Your task to perform on an android device: turn off notifications settings in the gmail app Image 0: 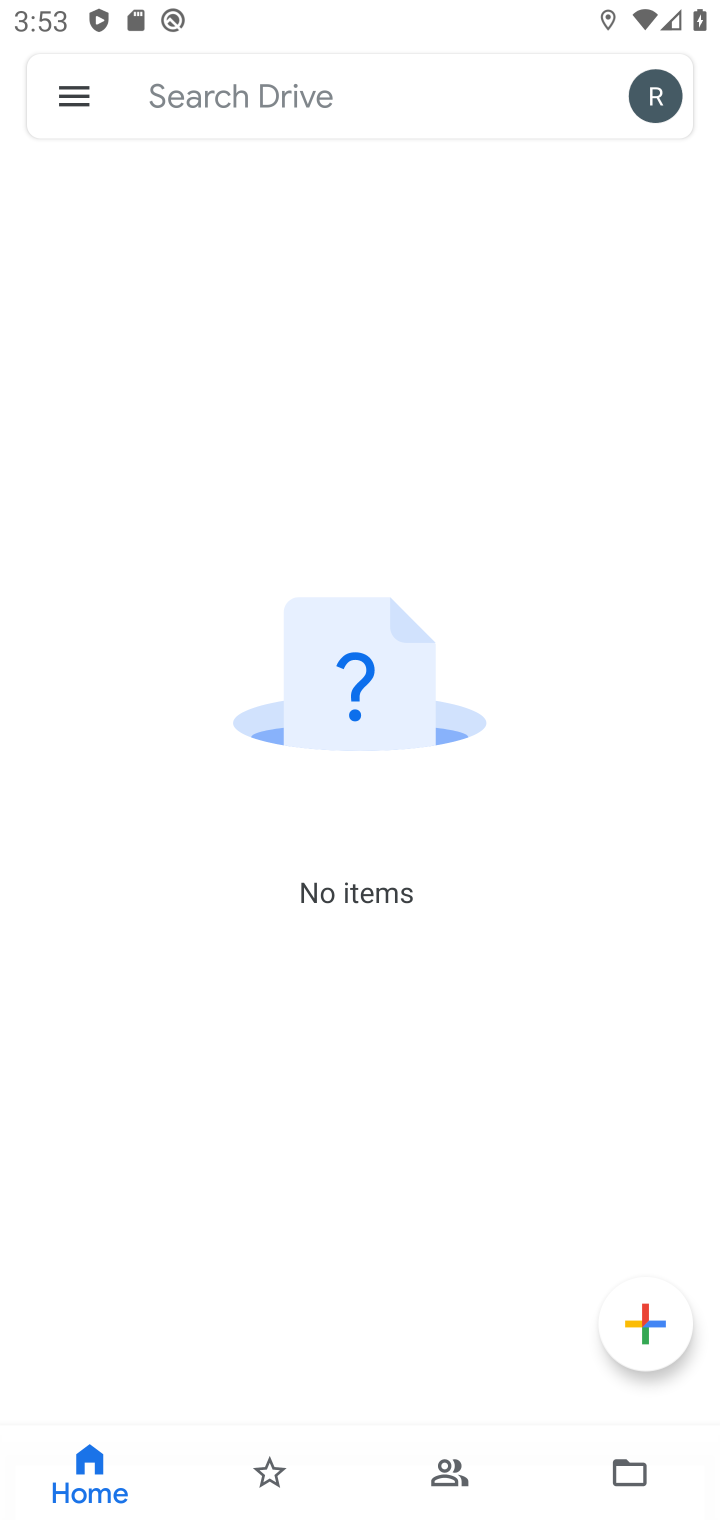
Step 0: press back button
Your task to perform on an android device: turn off notifications settings in the gmail app Image 1: 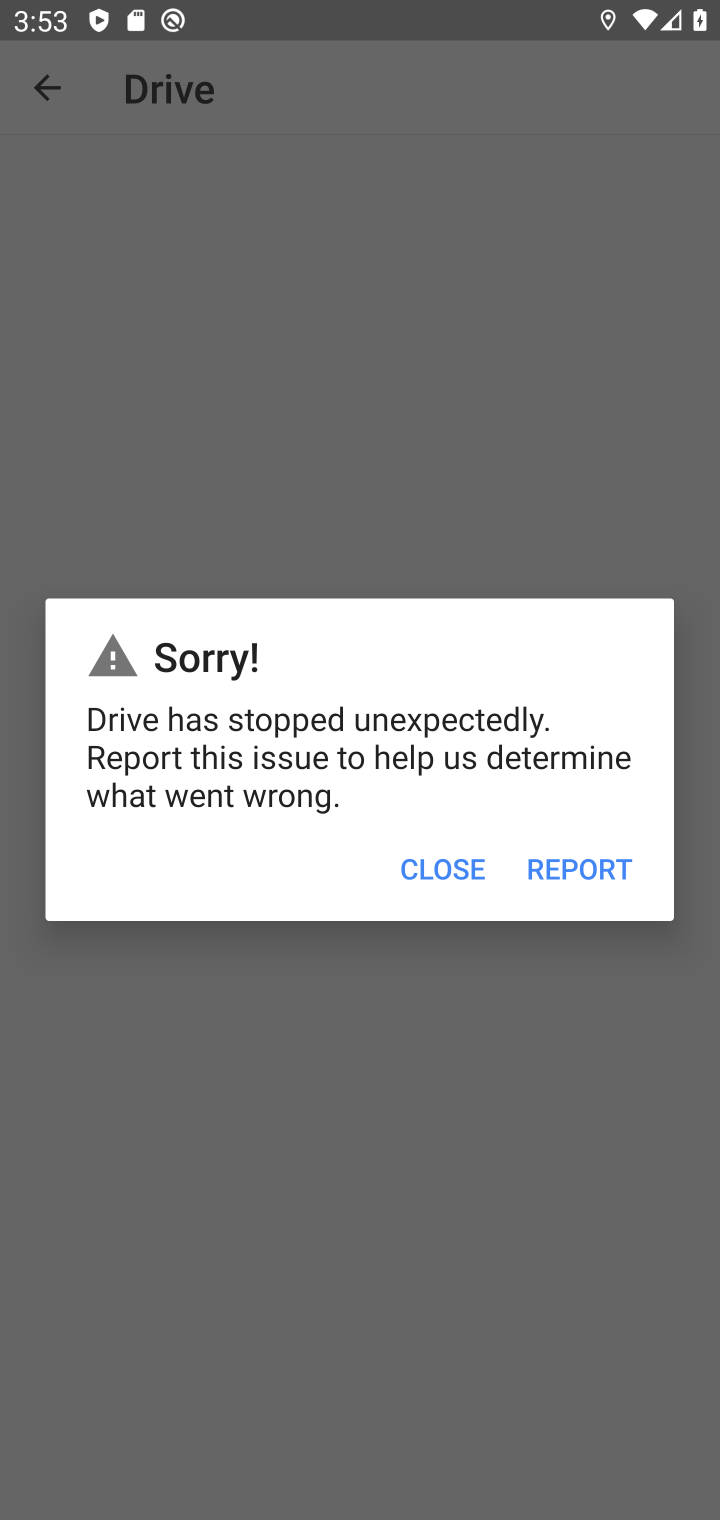
Step 1: click (444, 867)
Your task to perform on an android device: turn off notifications settings in the gmail app Image 2: 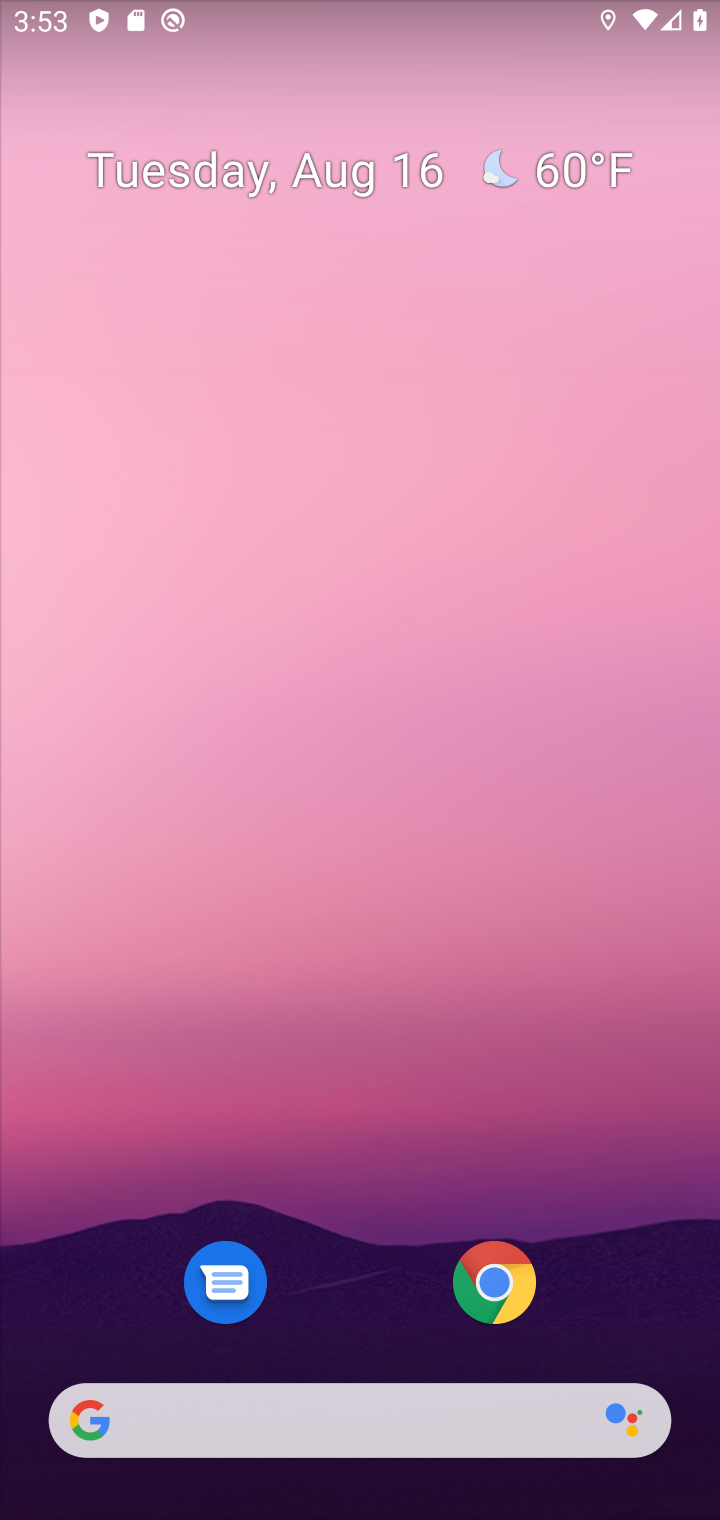
Step 2: drag from (376, 1235) to (621, 3)
Your task to perform on an android device: turn off notifications settings in the gmail app Image 3: 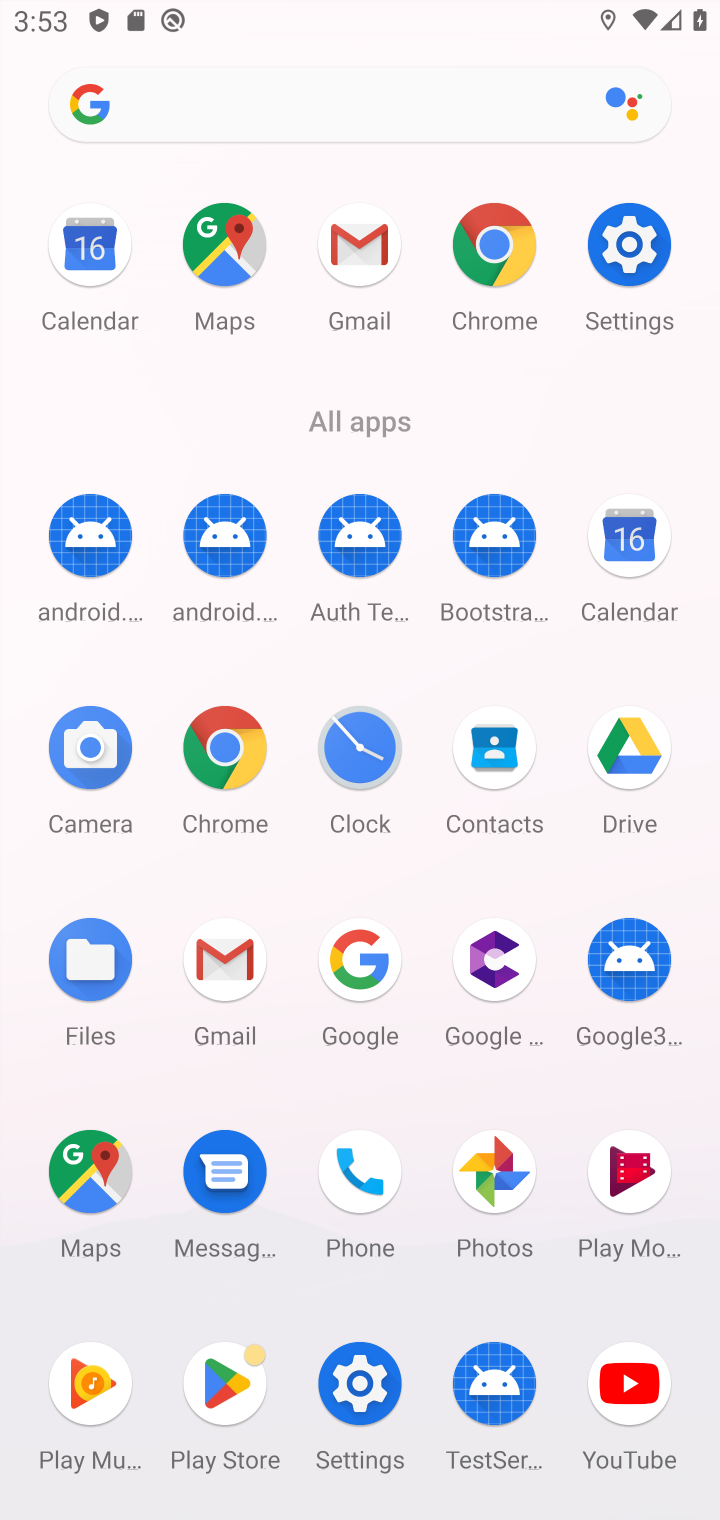
Step 3: click (363, 218)
Your task to perform on an android device: turn off notifications settings in the gmail app Image 4: 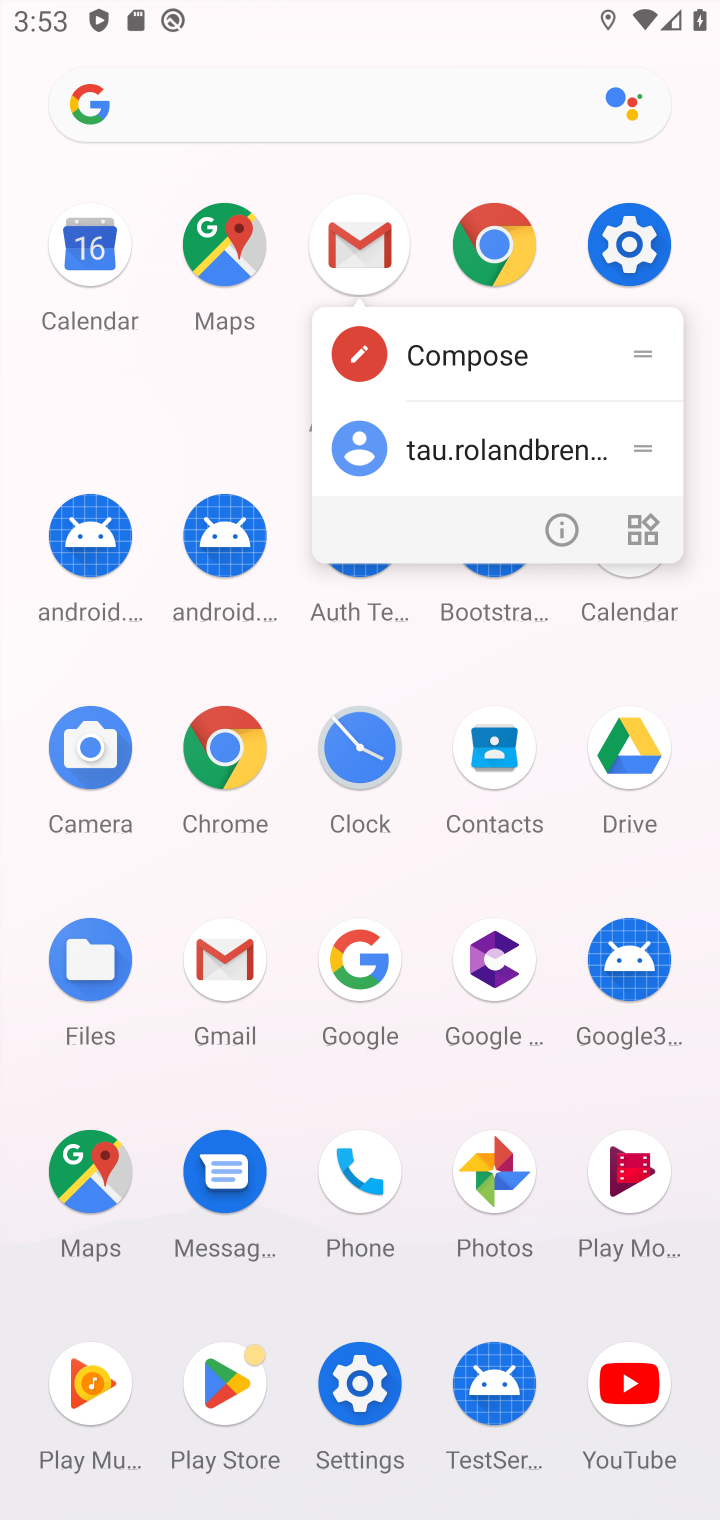
Step 4: click (575, 520)
Your task to perform on an android device: turn off notifications settings in the gmail app Image 5: 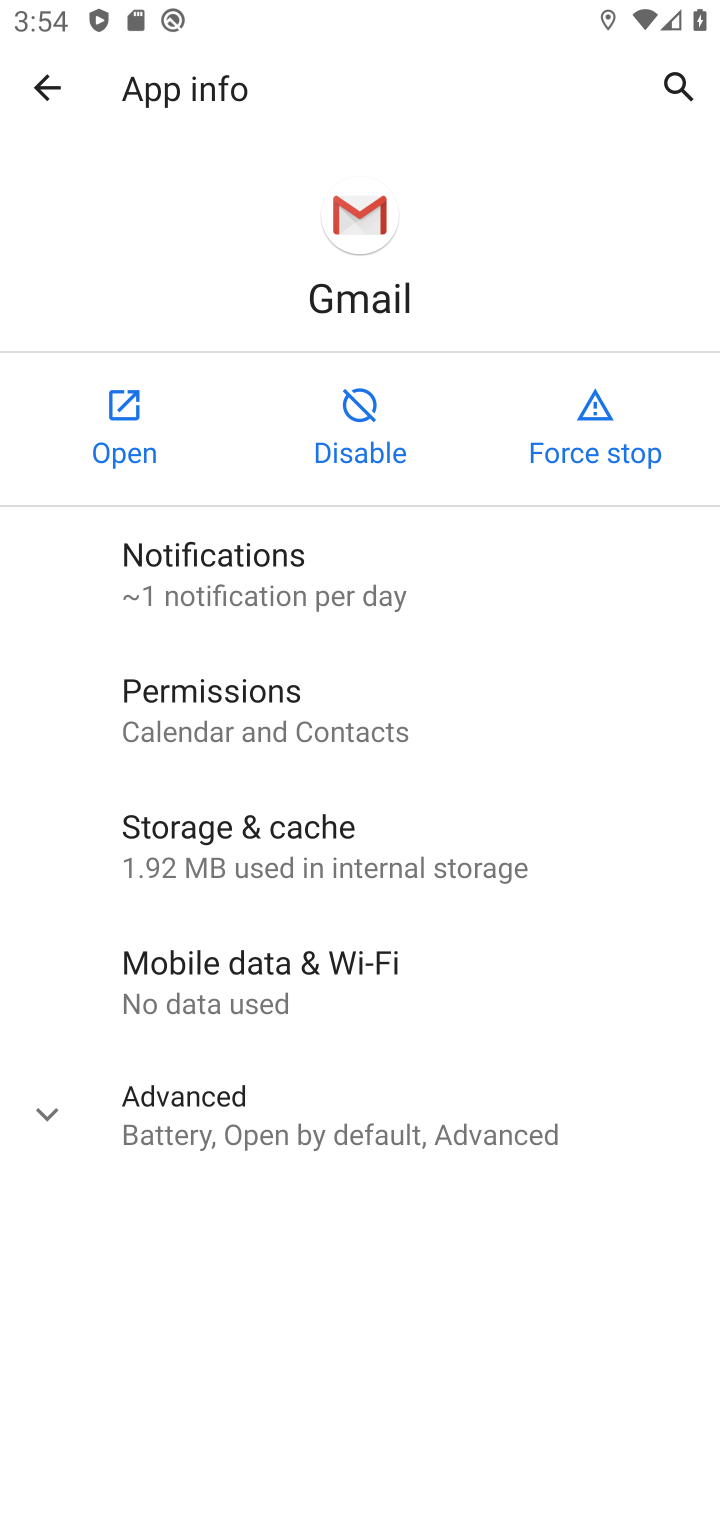
Step 5: click (271, 545)
Your task to perform on an android device: turn off notifications settings in the gmail app Image 6: 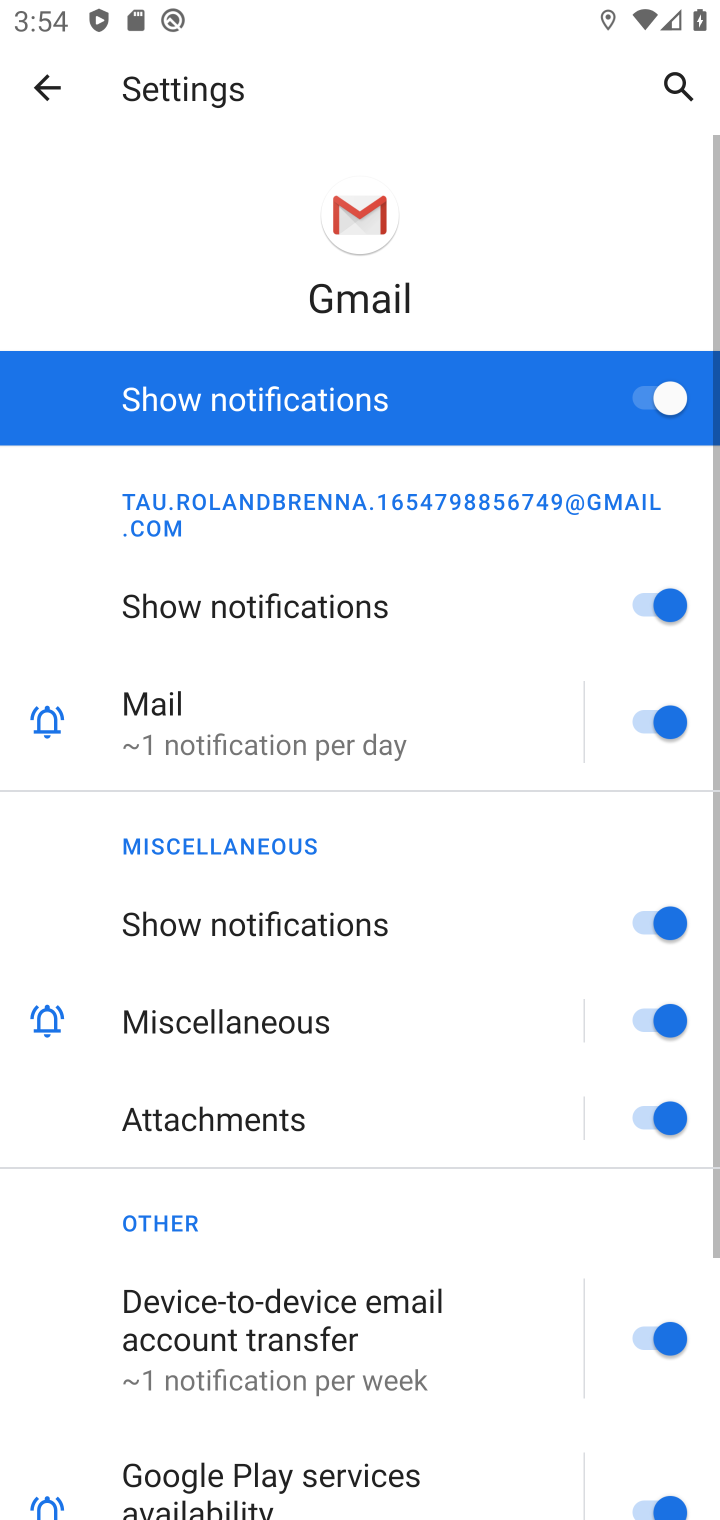
Step 6: click (668, 386)
Your task to perform on an android device: turn off notifications settings in the gmail app Image 7: 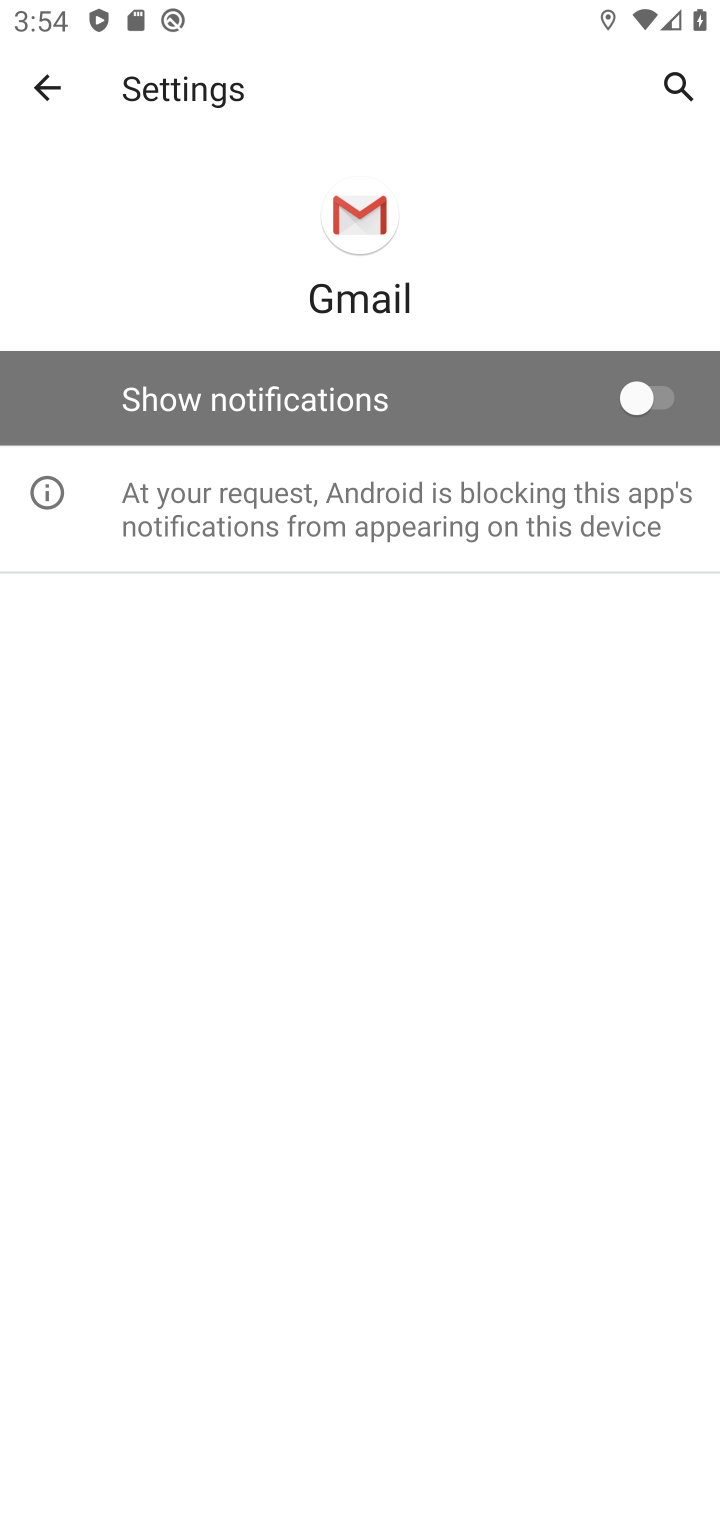
Step 7: task complete